Your task to perform on an android device: Go to notification settings Image 0: 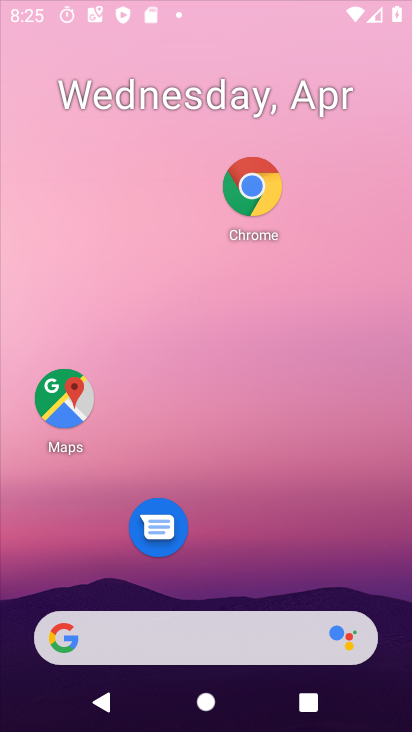
Step 0: drag from (325, 359) to (337, 132)
Your task to perform on an android device: Go to notification settings Image 1: 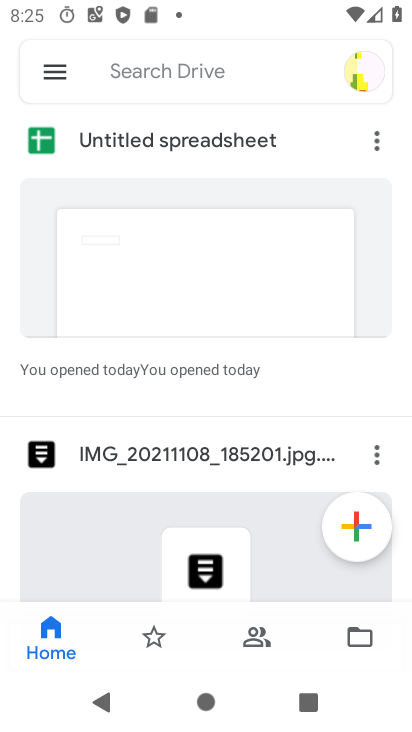
Step 1: press home button
Your task to perform on an android device: Go to notification settings Image 2: 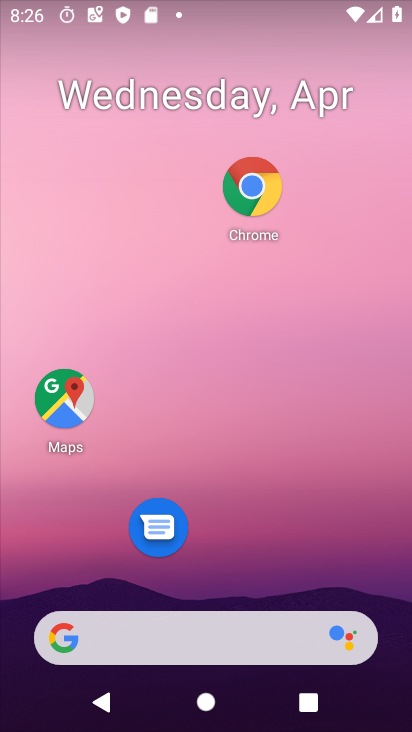
Step 2: drag from (283, 570) to (327, 178)
Your task to perform on an android device: Go to notification settings Image 3: 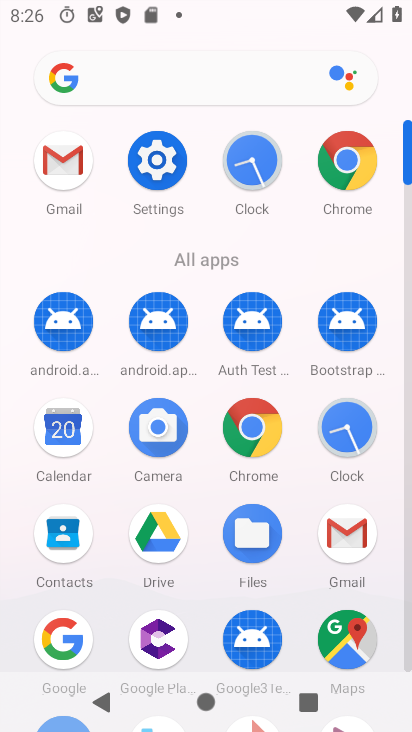
Step 3: click (154, 157)
Your task to perform on an android device: Go to notification settings Image 4: 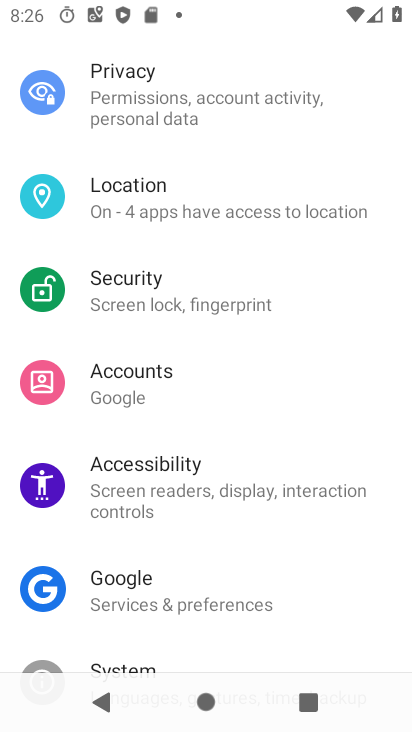
Step 4: drag from (219, 130) to (199, 621)
Your task to perform on an android device: Go to notification settings Image 5: 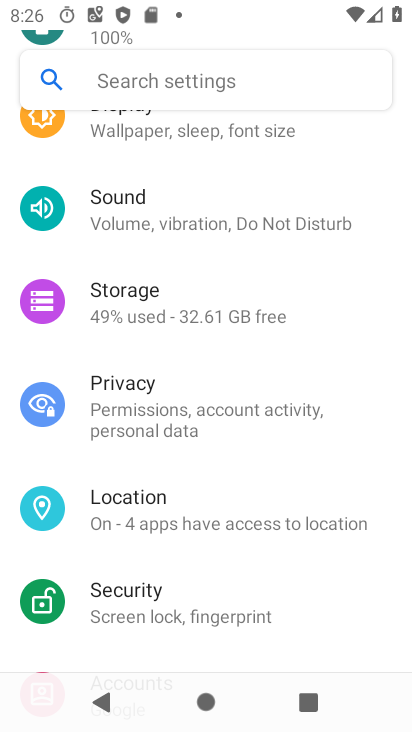
Step 5: drag from (296, 179) to (228, 609)
Your task to perform on an android device: Go to notification settings Image 6: 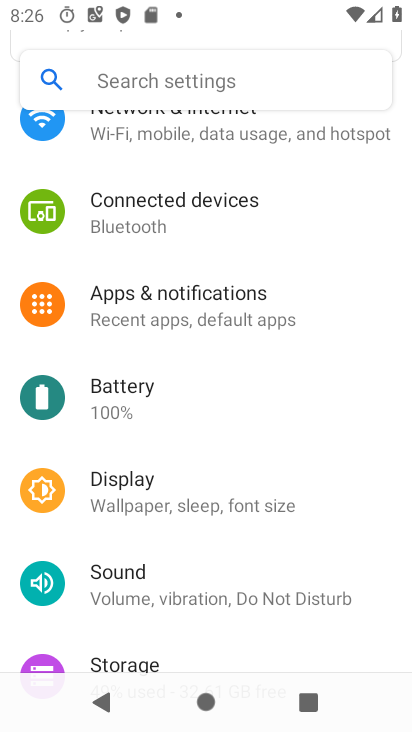
Step 6: drag from (236, 208) to (168, 647)
Your task to perform on an android device: Go to notification settings Image 7: 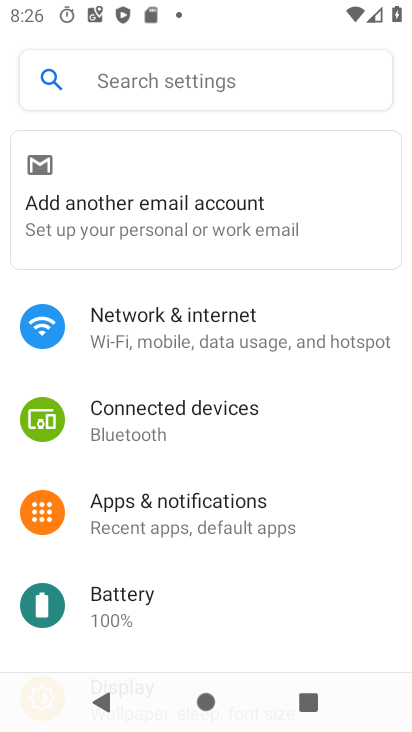
Step 7: click (208, 502)
Your task to perform on an android device: Go to notification settings Image 8: 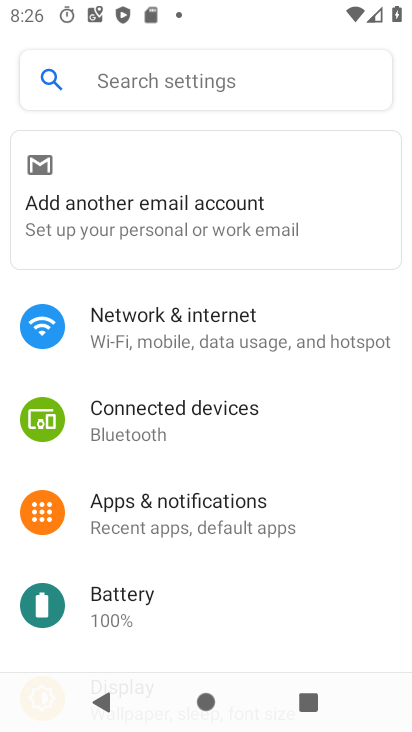
Step 8: click (208, 502)
Your task to perform on an android device: Go to notification settings Image 9: 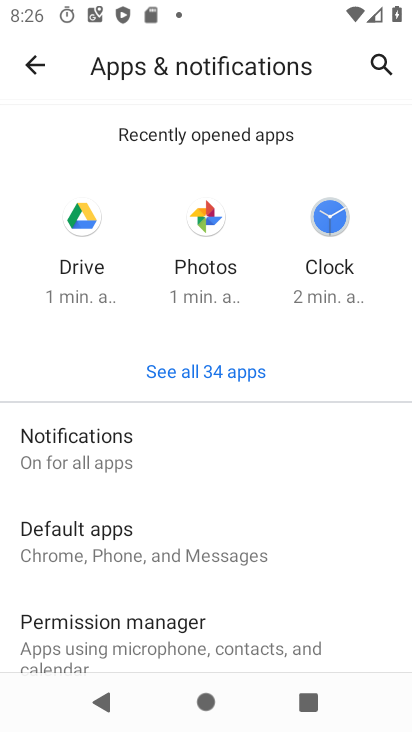
Step 9: click (134, 433)
Your task to perform on an android device: Go to notification settings Image 10: 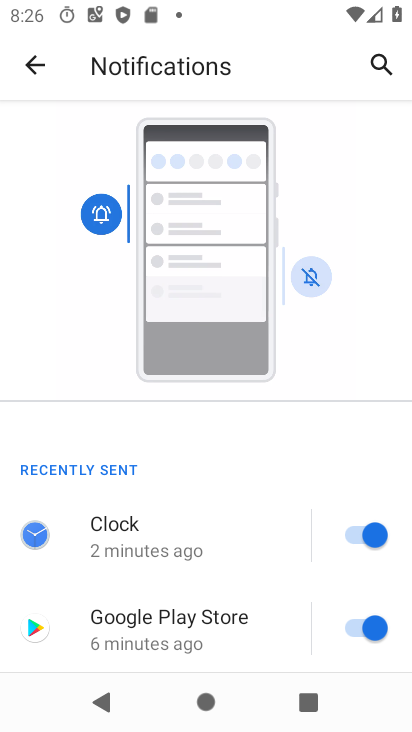
Step 10: drag from (212, 598) to (295, 237)
Your task to perform on an android device: Go to notification settings Image 11: 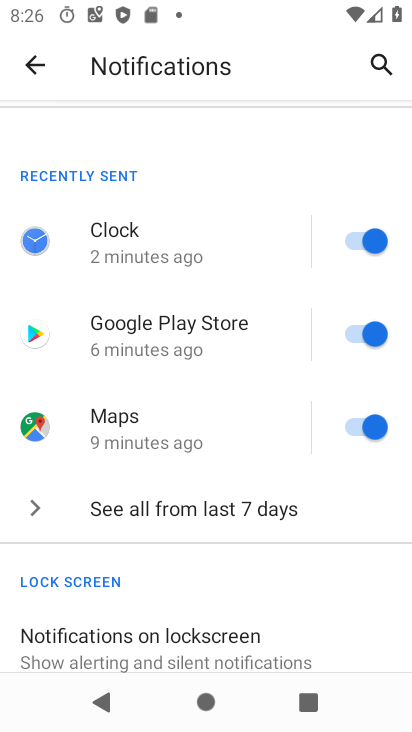
Step 11: click (202, 502)
Your task to perform on an android device: Go to notification settings Image 12: 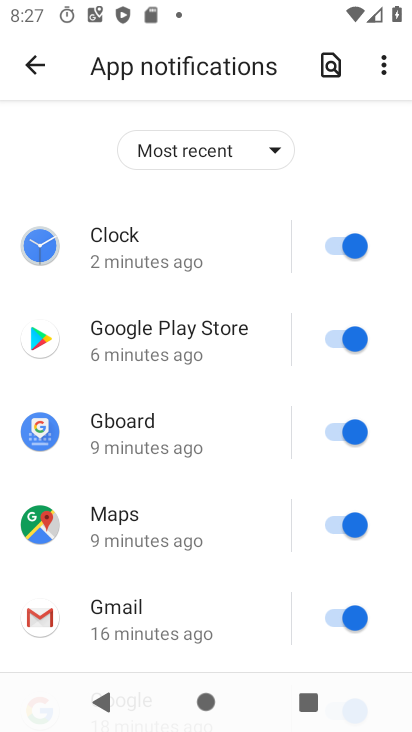
Step 12: click (332, 235)
Your task to perform on an android device: Go to notification settings Image 13: 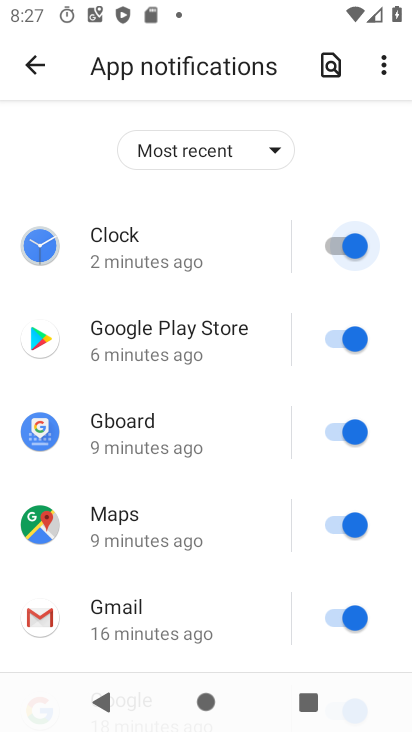
Step 13: click (329, 339)
Your task to perform on an android device: Go to notification settings Image 14: 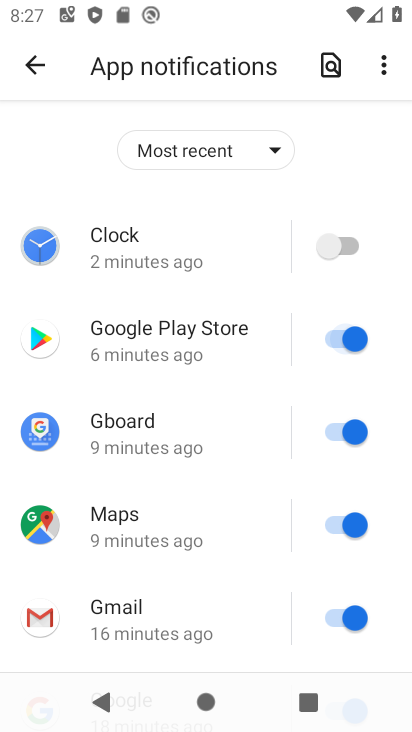
Step 14: click (333, 431)
Your task to perform on an android device: Go to notification settings Image 15: 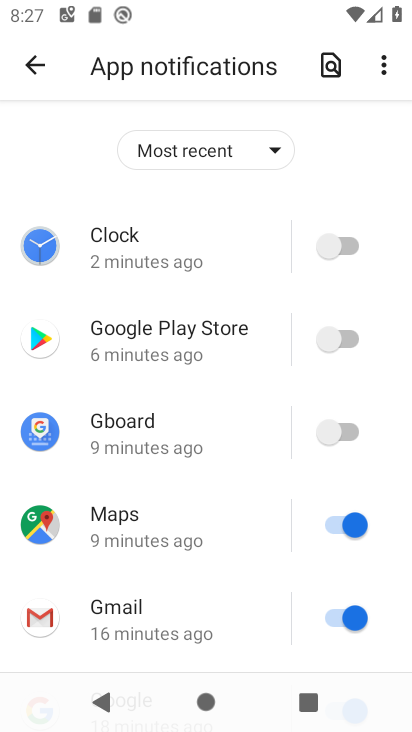
Step 15: click (325, 523)
Your task to perform on an android device: Go to notification settings Image 16: 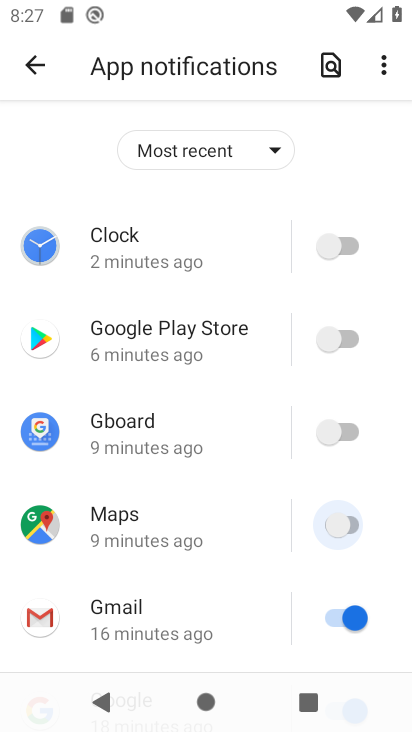
Step 16: click (327, 623)
Your task to perform on an android device: Go to notification settings Image 17: 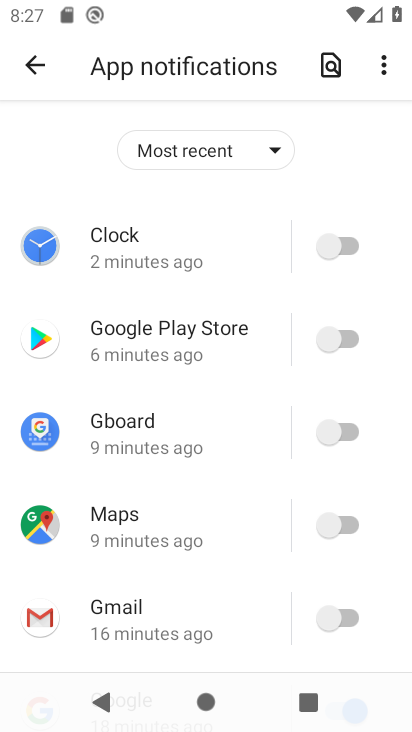
Step 17: drag from (197, 609) to (254, 187)
Your task to perform on an android device: Go to notification settings Image 18: 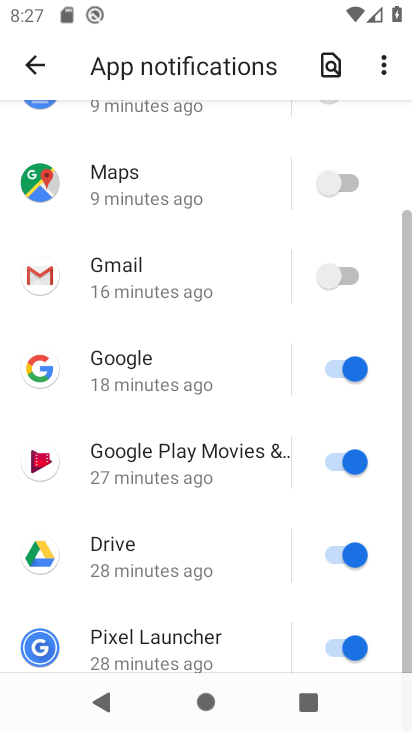
Step 18: drag from (169, 410) to (210, 138)
Your task to perform on an android device: Go to notification settings Image 19: 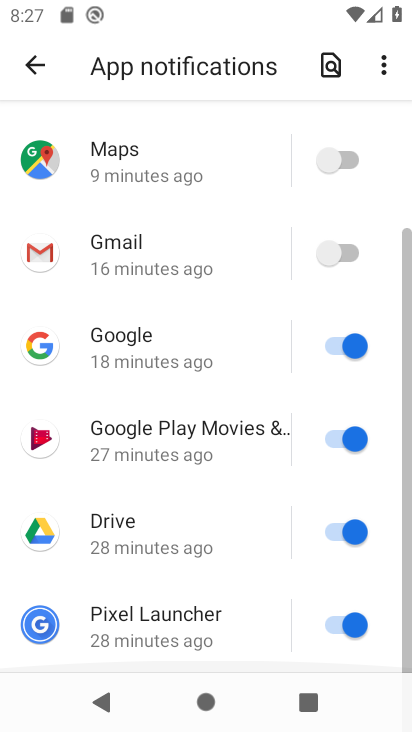
Step 19: click (336, 338)
Your task to perform on an android device: Go to notification settings Image 20: 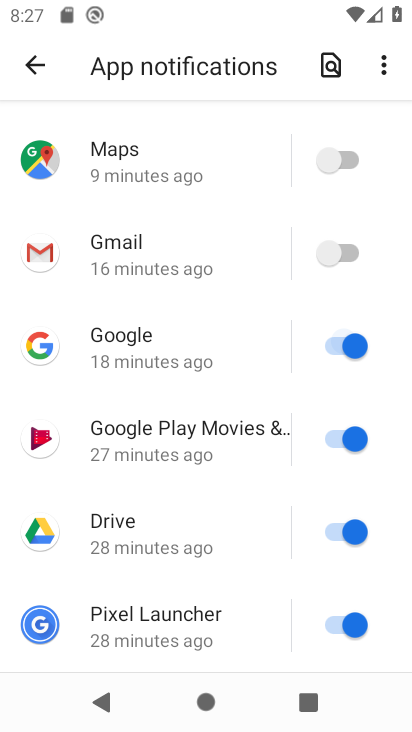
Step 20: click (329, 441)
Your task to perform on an android device: Go to notification settings Image 21: 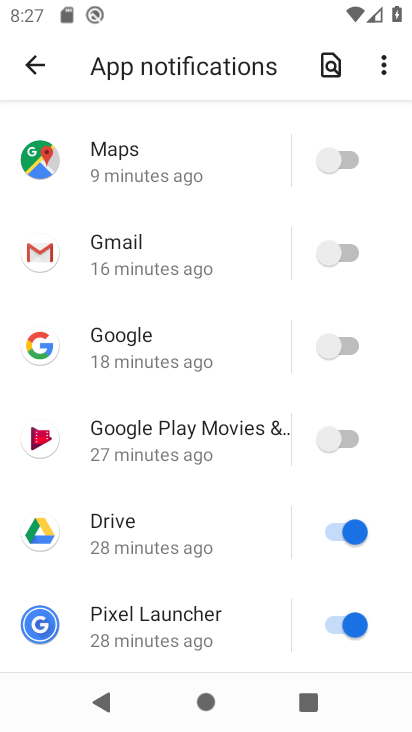
Step 21: click (331, 532)
Your task to perform on an android device: Go to notification settings Image 22: 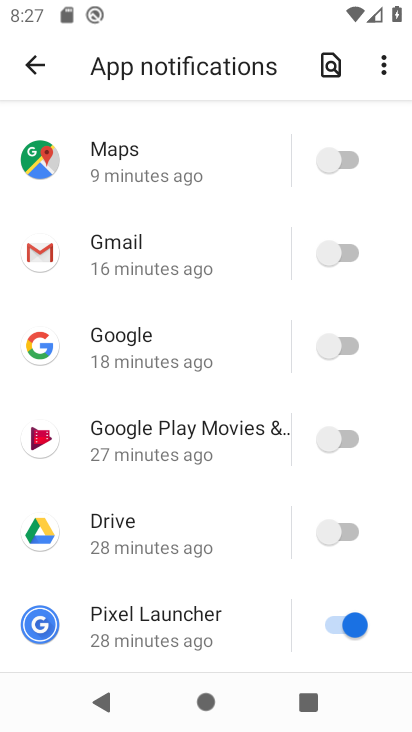
Step 22: click (353, 630)
Your task to perform on an android device: Go to notification settings Image 23: 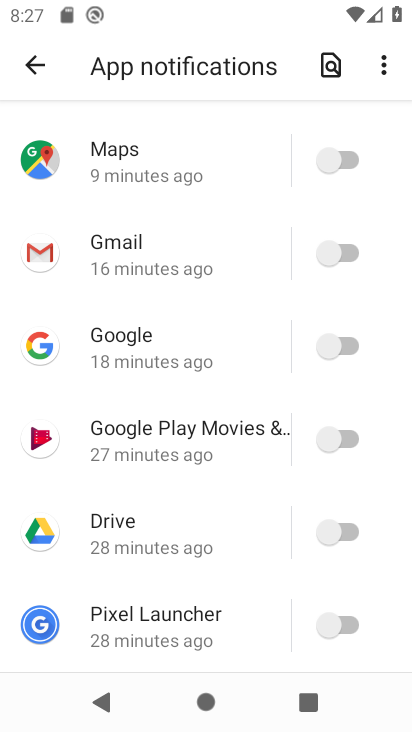
Step 23: task complete